Your task to perform on an android device: Search for pizza restaurants on Maps Image 0: 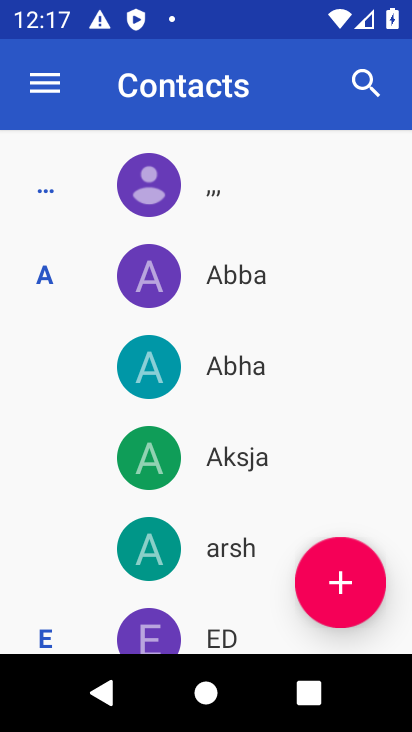
Step 0: press home button
Your task to perform on an android device: Search for pizza restaurants on Maps Image 1: 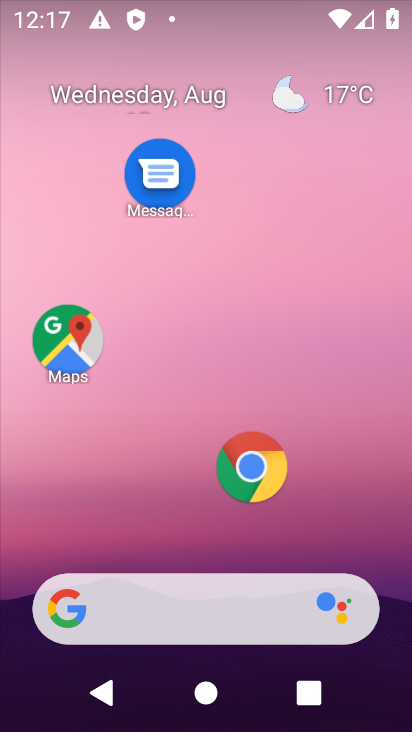
Step 1: click (57, 315)
Your task to perform on an android device: Search for pizza restaurants on Maps Image 2: 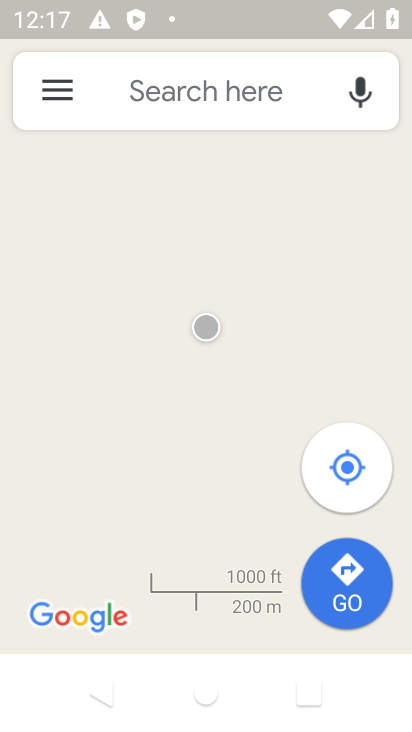
Step 2: click (265, 117)
Your task to perform on an android device: Search for pizza restaurants on Maps Image 3: 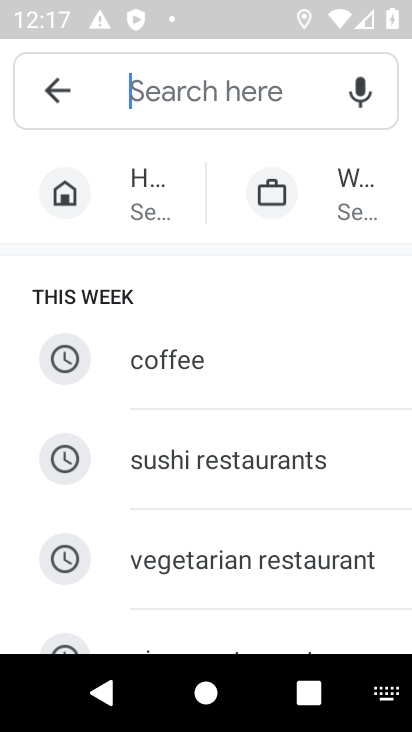
Step 3: type "pizza"
Your task to perform on an android device: Search for pizza restaurants on Maps Image 4: 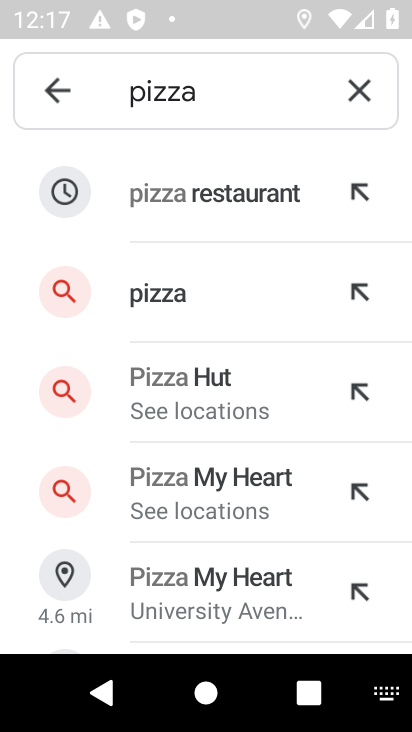
Step 4: click (249, 186)
Your task to perform on an android device: Search for pizza restaurants on Maps Image 5: 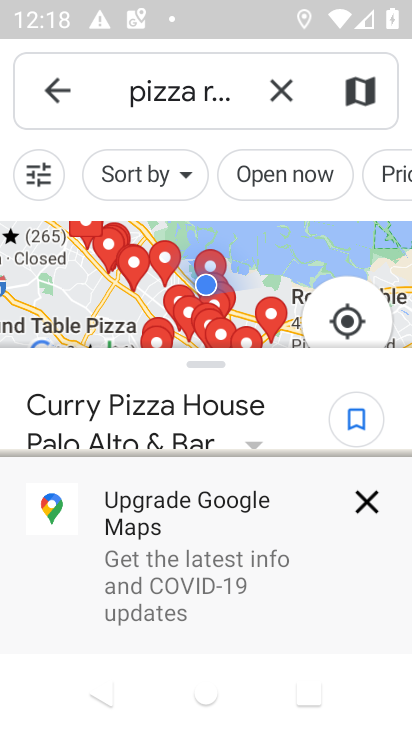
Step 5: task complete